Your task to perform on an android device: toggle data saver in the chrome app Image 0: 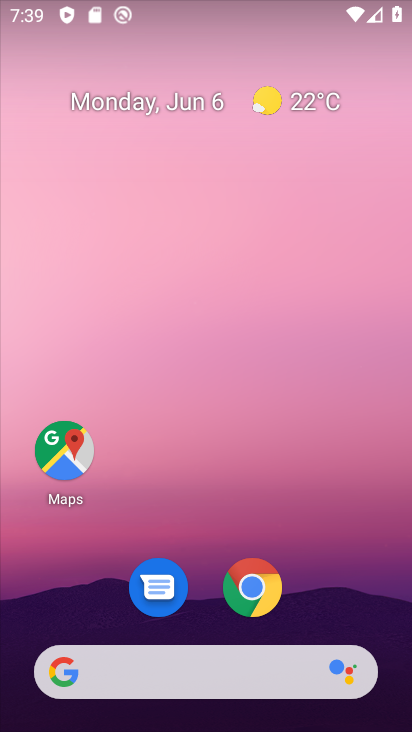
Step 0: click (266, 577)
Your task to perform on an android device: toggle data saver in the chrome app Image 1: 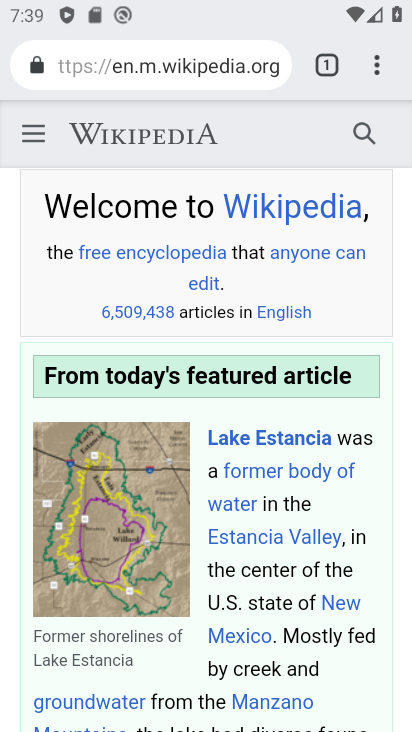
Step 1: click (375, 67)
Your task to perform on an android device: toggle data saver in the chrome app Image 2: 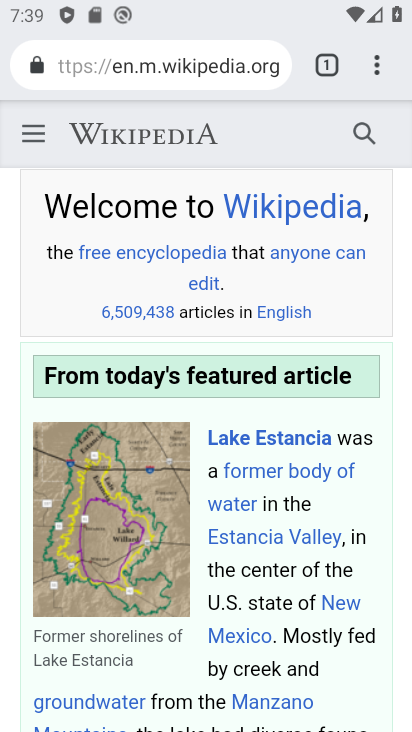
Step 2: click (376, 59)
Your task to perform on an android device: toggle data saver in the chrome app Image 3: 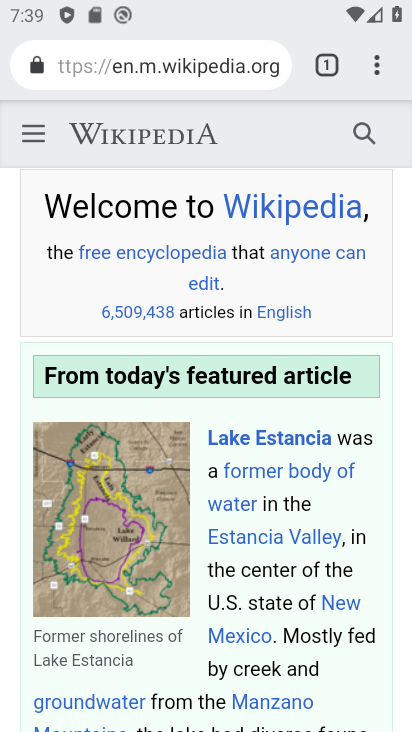
Step 3: click (379, 61)
Your task to perform on an android device: toggle data saver in the chrome app Image 4: 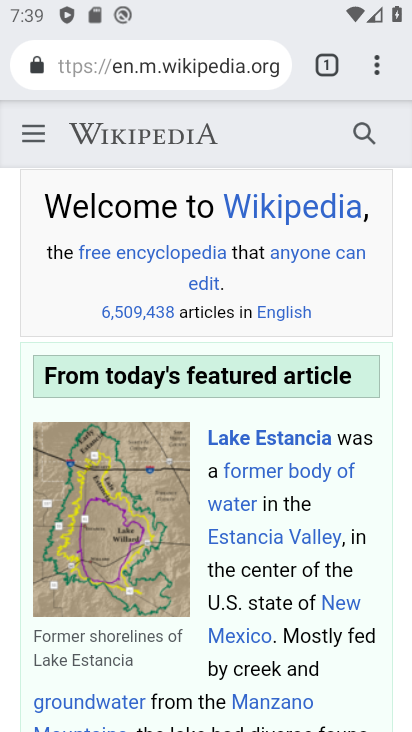
Step 4: click (379, 61)
Your task to perform on an android device: toggle data saver in the chrome app Image 5: 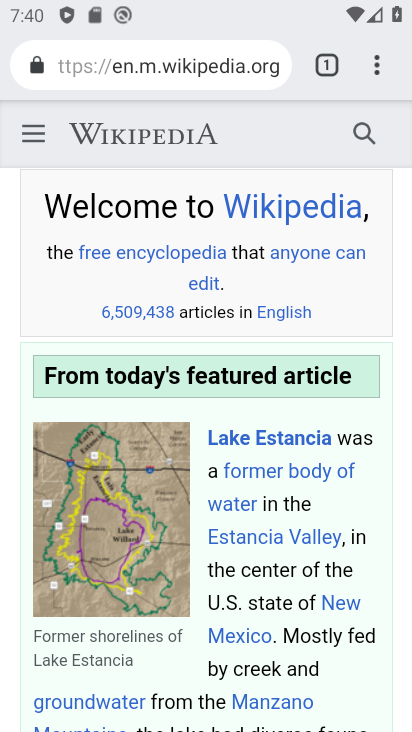
Step 5: press back button
Your task to perform on an android device: toggle data saver in the chrome app Image 6: 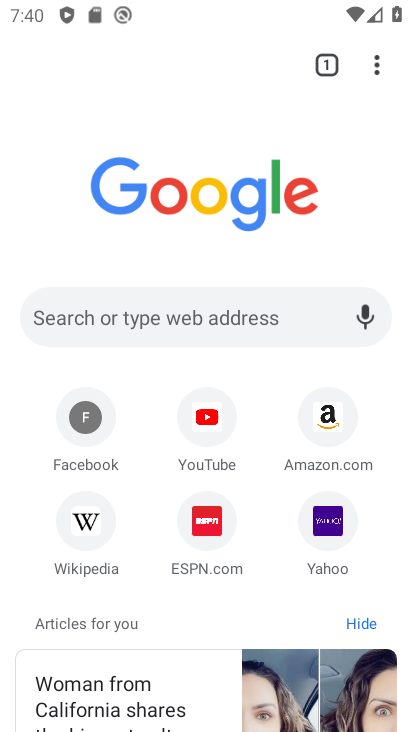
Step 6: click (381, 66)
Your task to perform on an android device: toggle data saver in the chrome app Image 7: 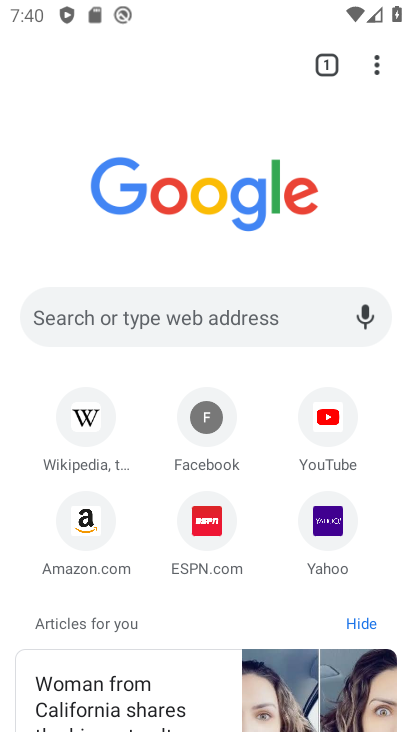
Step 7: click (377, 61)
Your task to perform on an android device: toggle data saver in the chrome app Image 8: 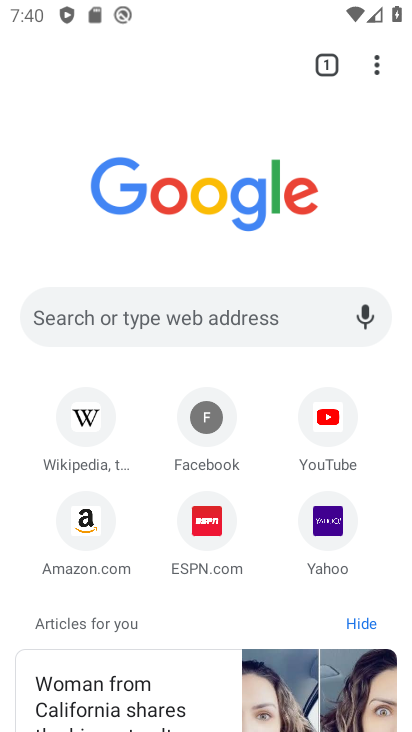
Step 8: click (366, 59)
Your task to perform on an android device: toggle data saver in the chrome app Image 9: 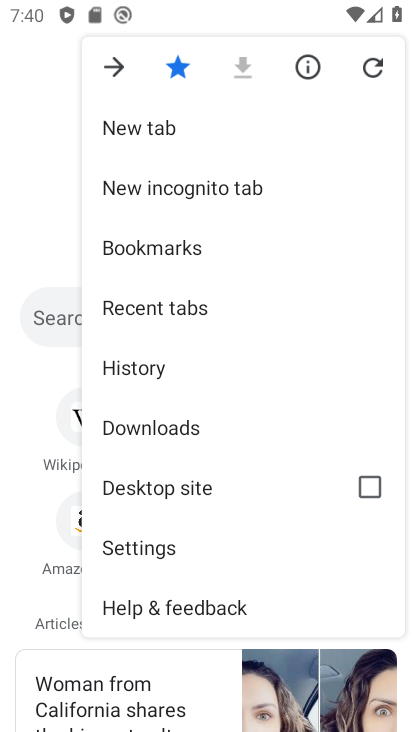
Step 9: click (151, 549)
Your task to perform on an android device: toggle data saver in the chrome app Image 10: 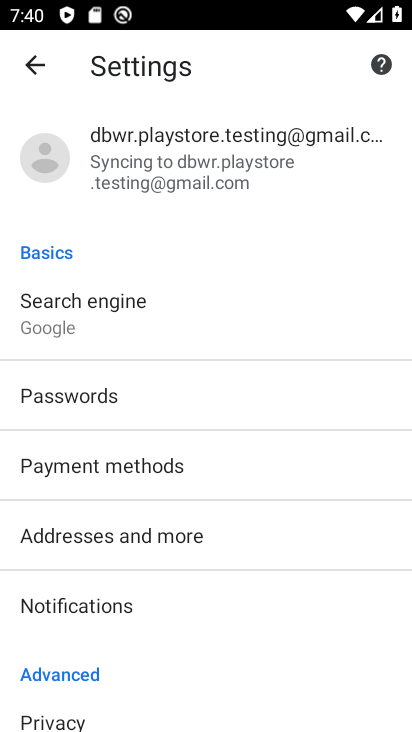
Step 10: drag from (147, 663) to (134, 387)
Your task to perform on an android device: toggle data saver in the chrome app Image 11: 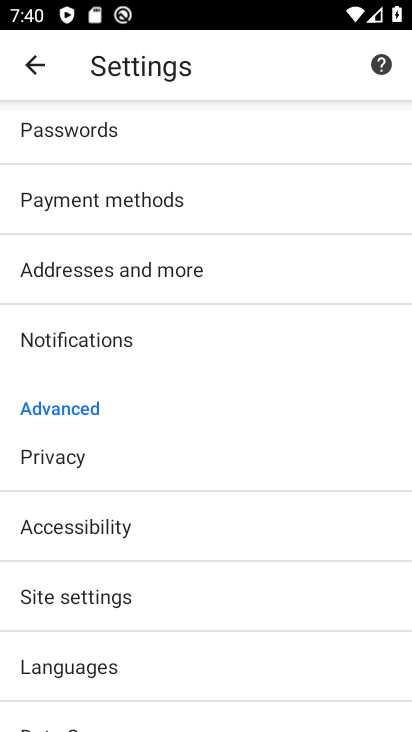
Step 11: drag from (153, 473) to (153, 394)
Your task to perform on an android device: toggle data saver in the chrome app Image 12: 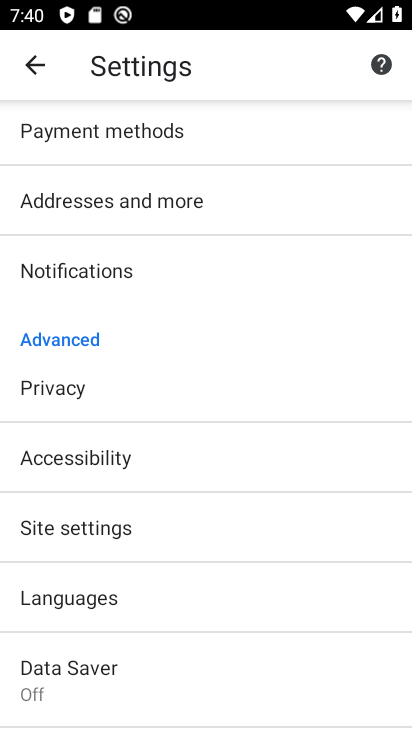
Step 12: click (73, 667)
Your task to perform on an android device: toggle data saver in the chrome app Image 13: 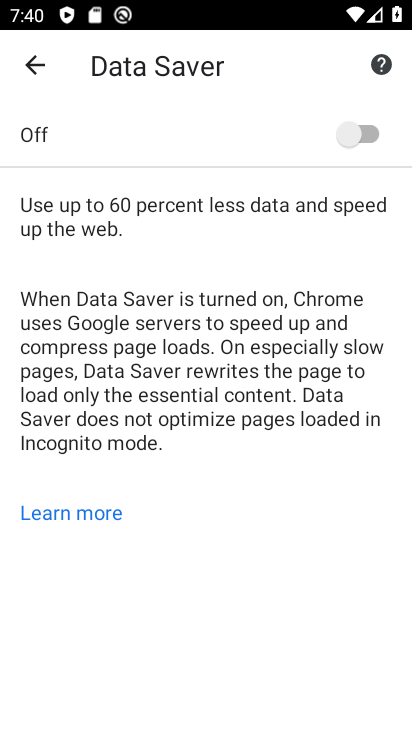
Step 13: click (354, 138)
Your task to perform on an android device: toggle data saver in the chrome app Image 14: 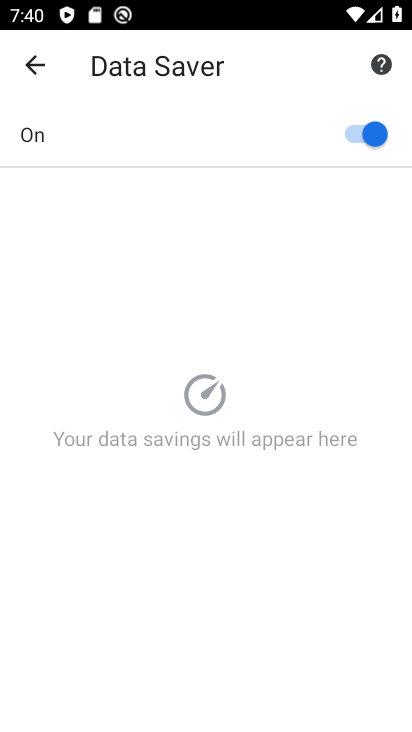
Step 14: task complete